Your task to perform on an android device: Open the stopwatch Image 0: 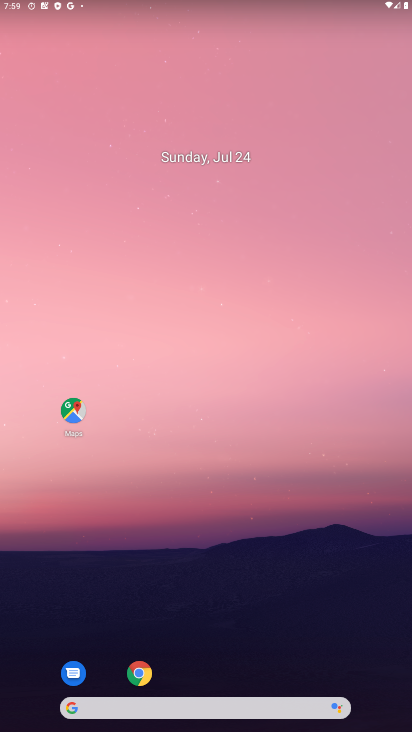
Step 0: drag from (17, 696) to (288, 6)
Your task to perform on an android device: Open the stopwatch Image 1: 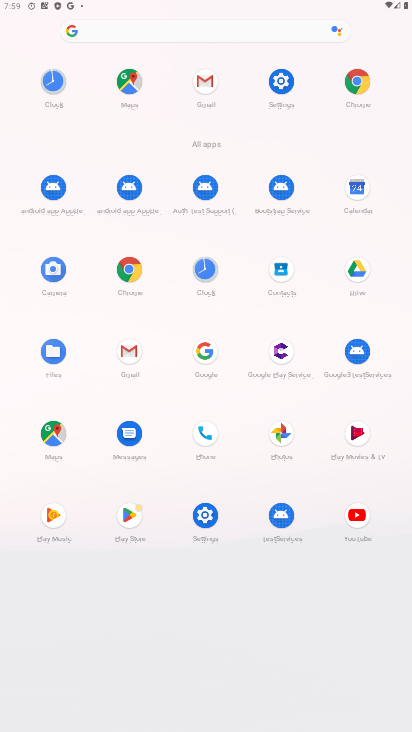
Step 1: click (206, 279)
Your task to perform on an android device: Open the stopwatch Image 2: 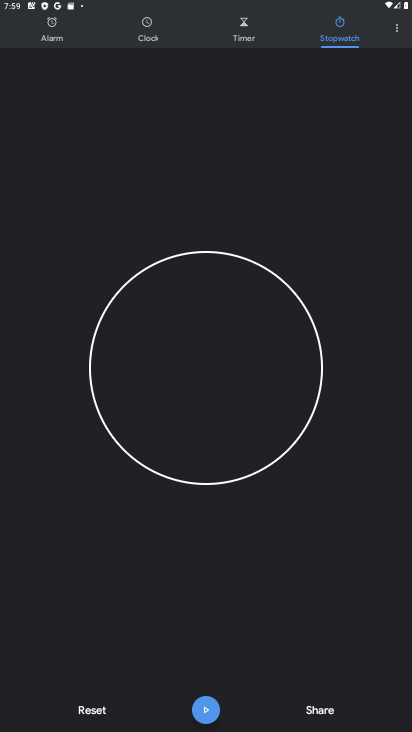
Step 2: click (189, 386)
Your task to perform on an android device: Open the stopwatch Image 3: 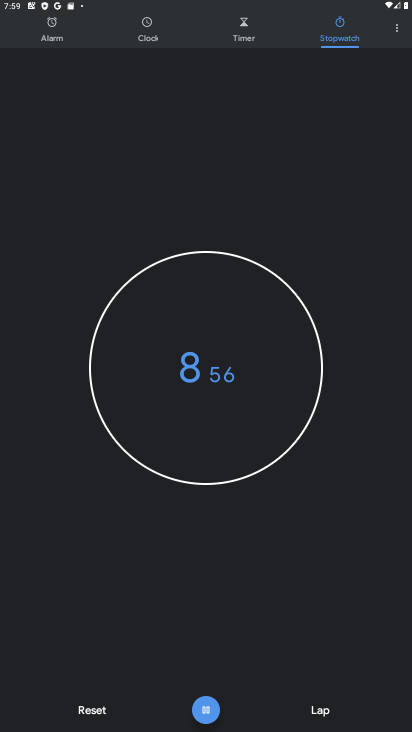
Step 3: click (178, 385)
Your task to perform on an android device: Open the stopwatch Image 4: 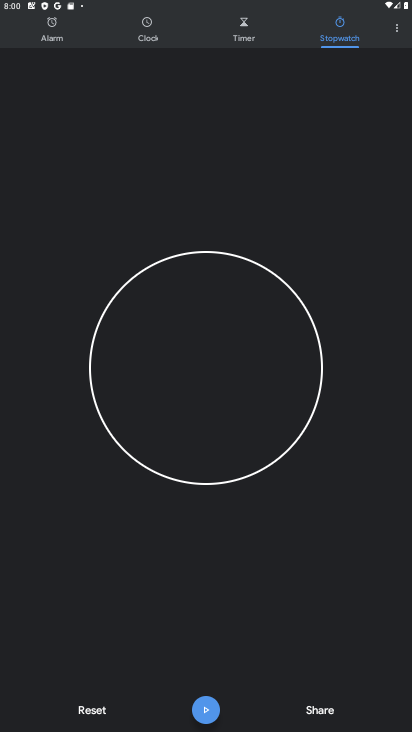
Step 4: task complete